Your task to perform on an android device: Search for a new desk on Ikea Image 0: 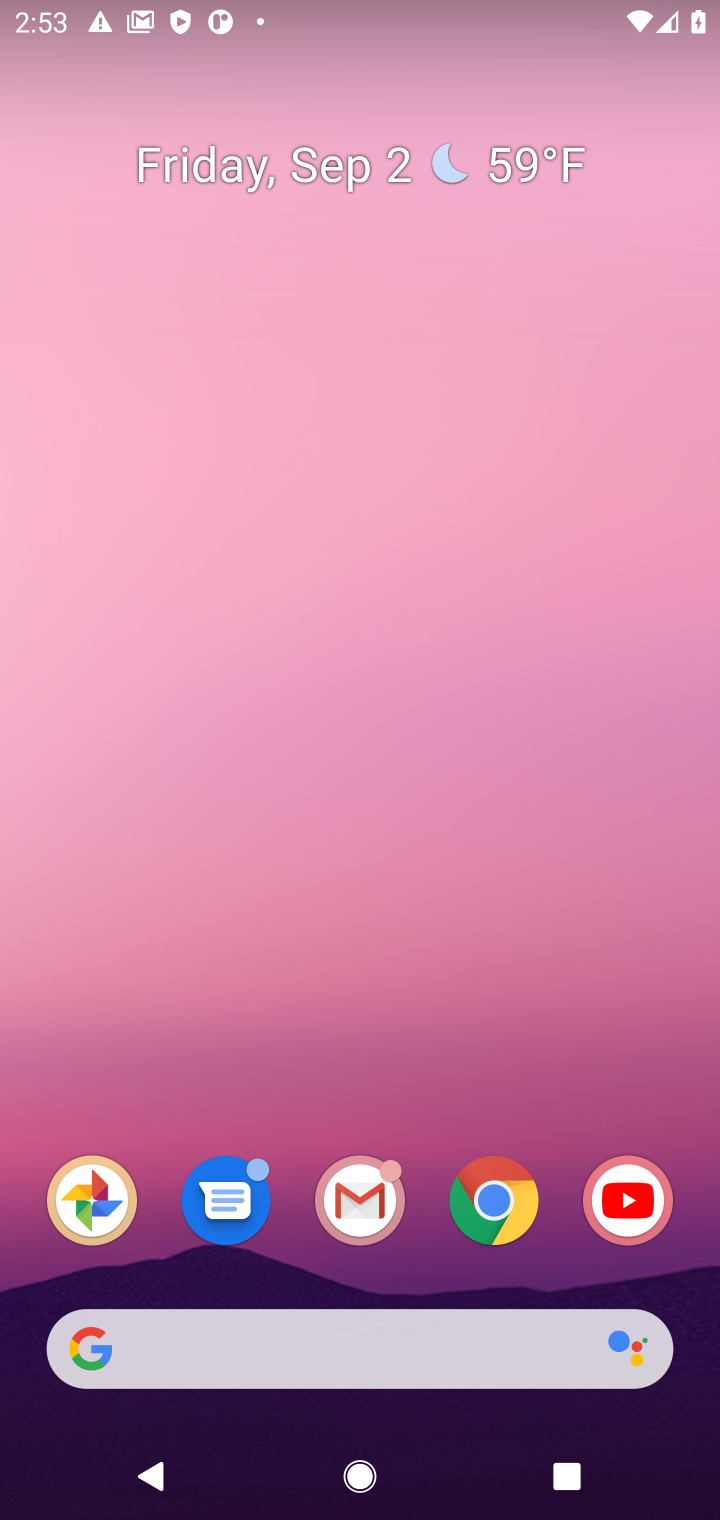
Step 0: click (485, 1213)
Your task to perform on an android device: Search for a new desk on Ikea Image 1: 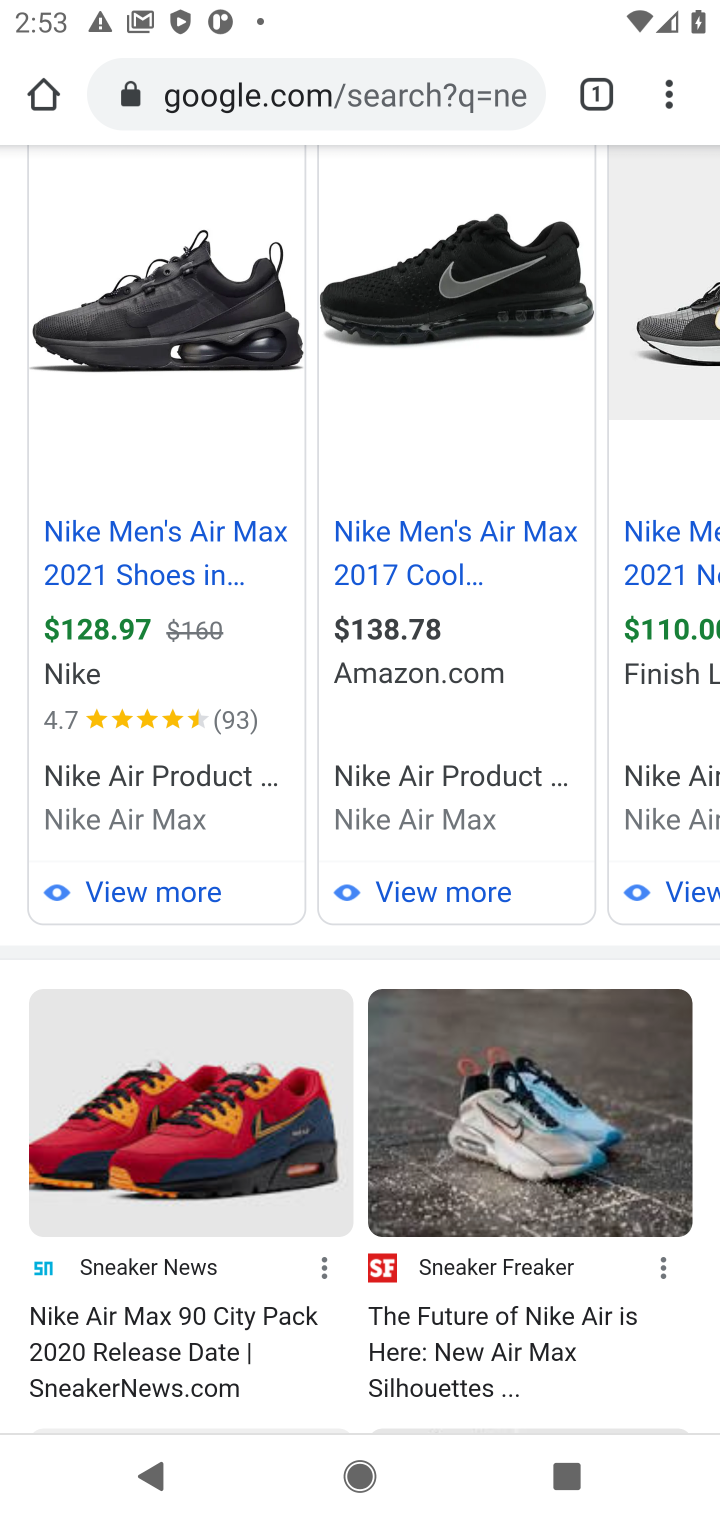
Step 1: click (400, 94)
Your task to perform on an android device: Search for a new desk on Ikea Image 2: 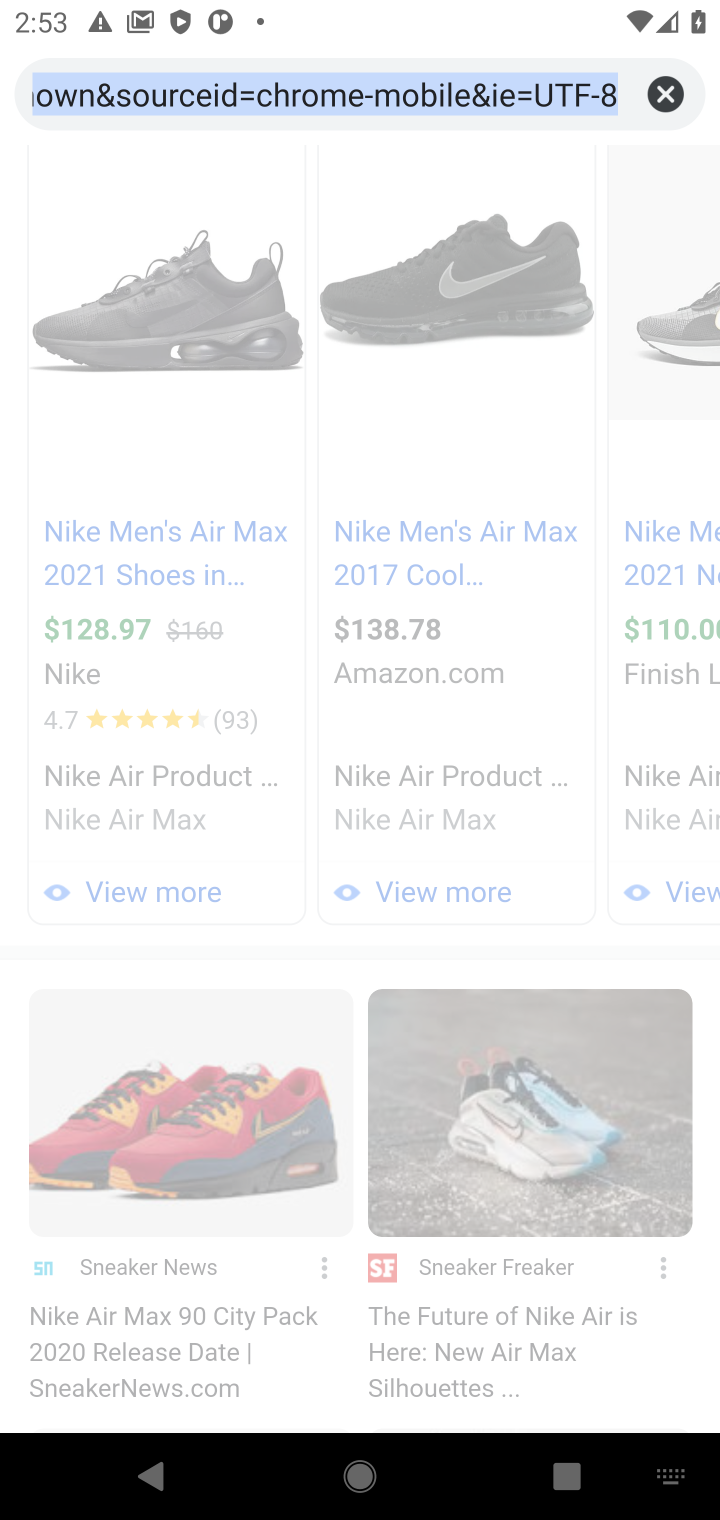
Step 2: click (655, 99)
Your task to perform on an android device: Search for a new desk on Ikea Image 3: 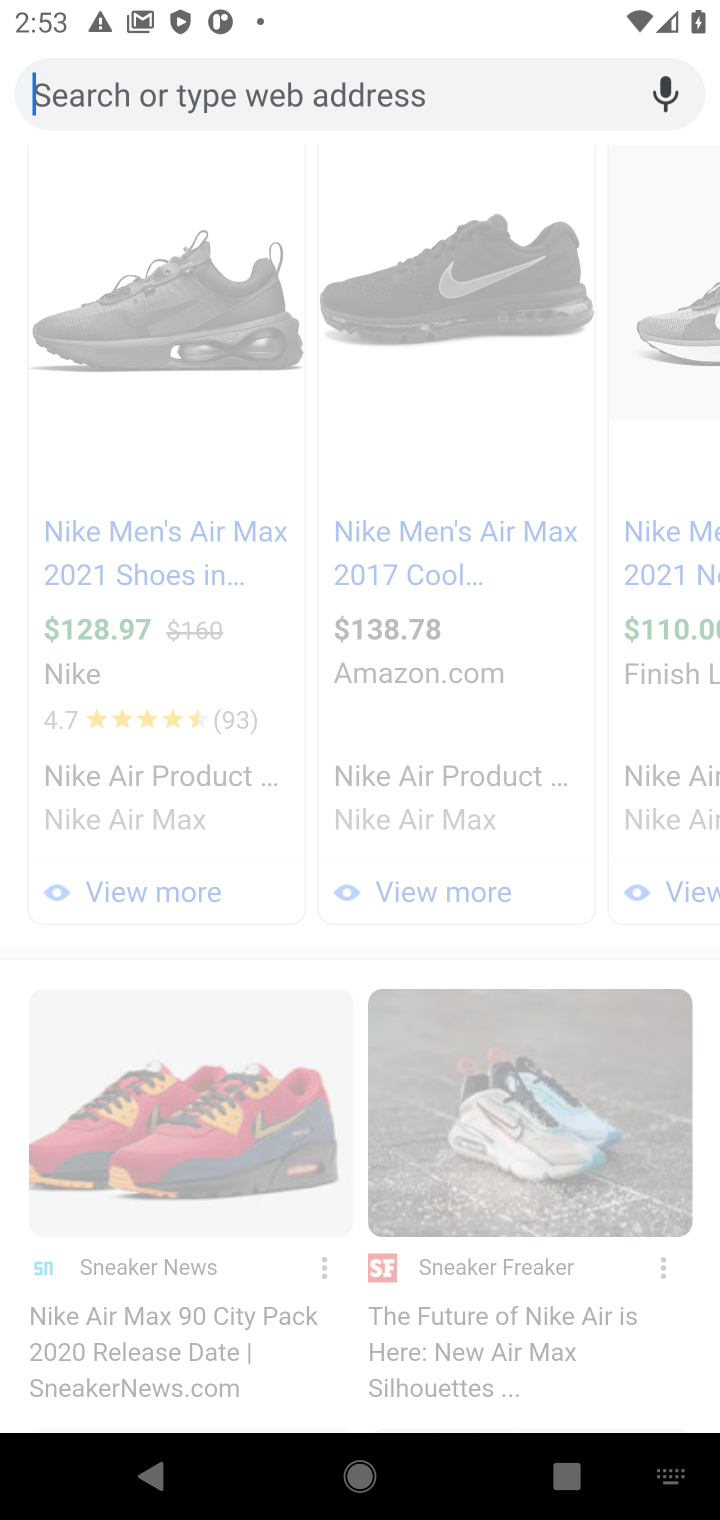
Step 3: press enter
Your task to perform on an android device: Search for a new desk on Ikea Image 4: 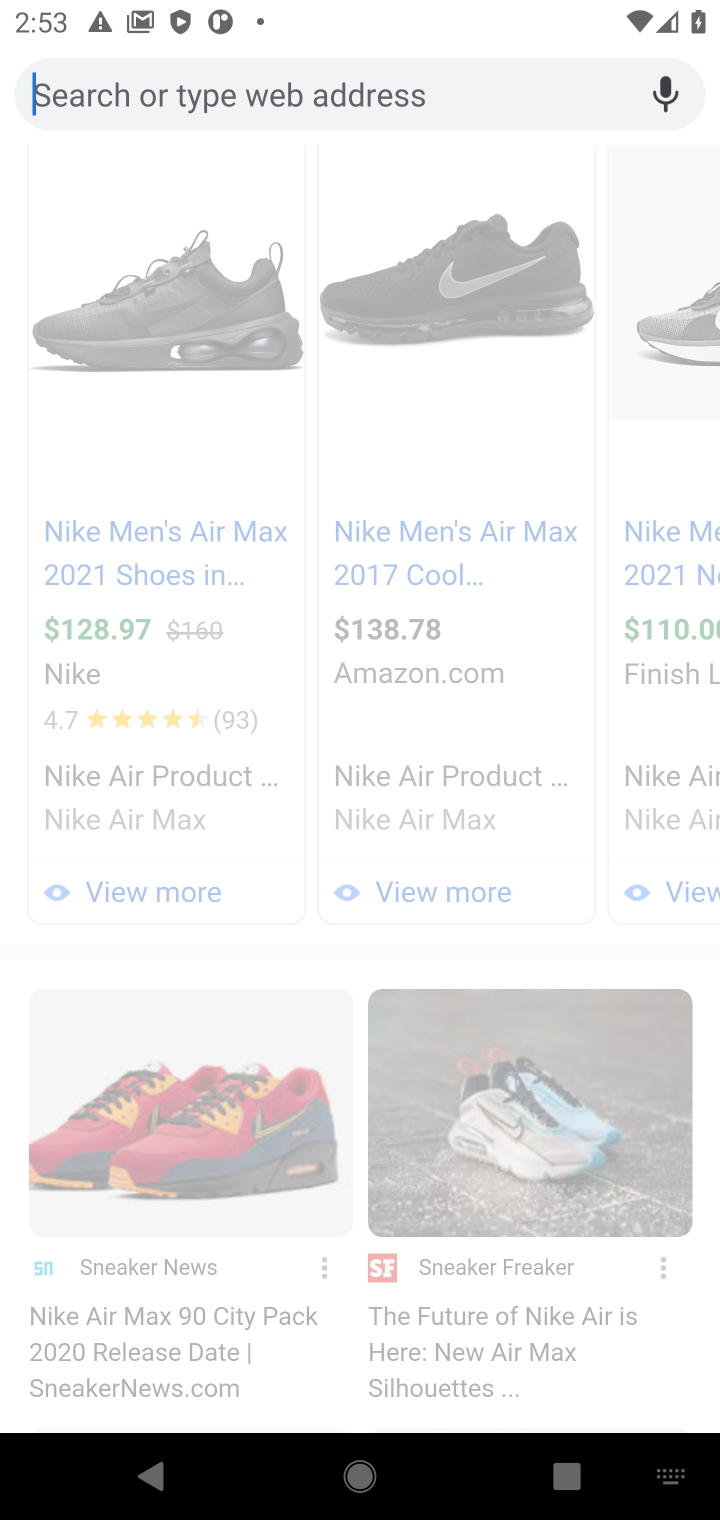
Step 4: type "Ikea"
Your task to perform on an android device: Search for a new desk on Ikea Image 5: 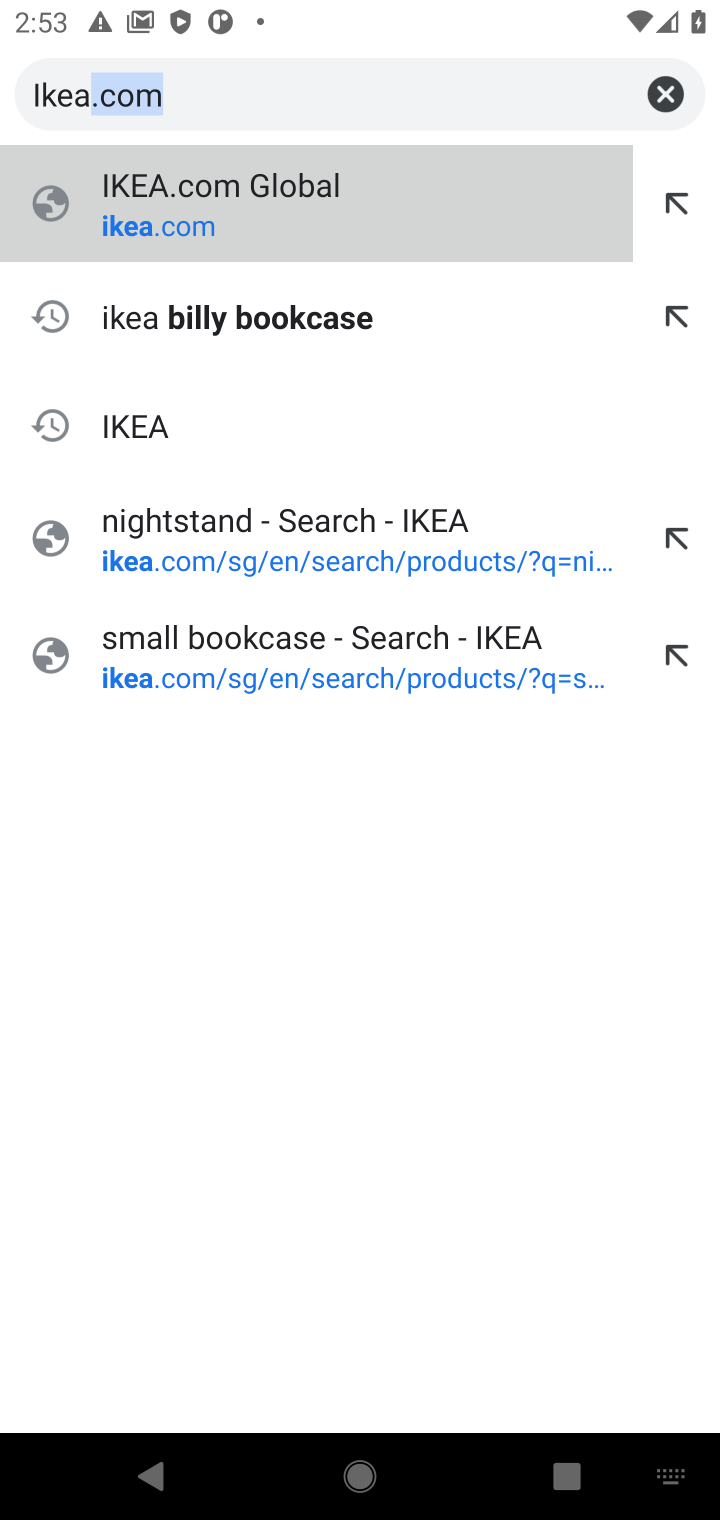
Step 5: click (300, 445)
Your task to perform on an android device: Search for a new desk on Ikea Image 6: 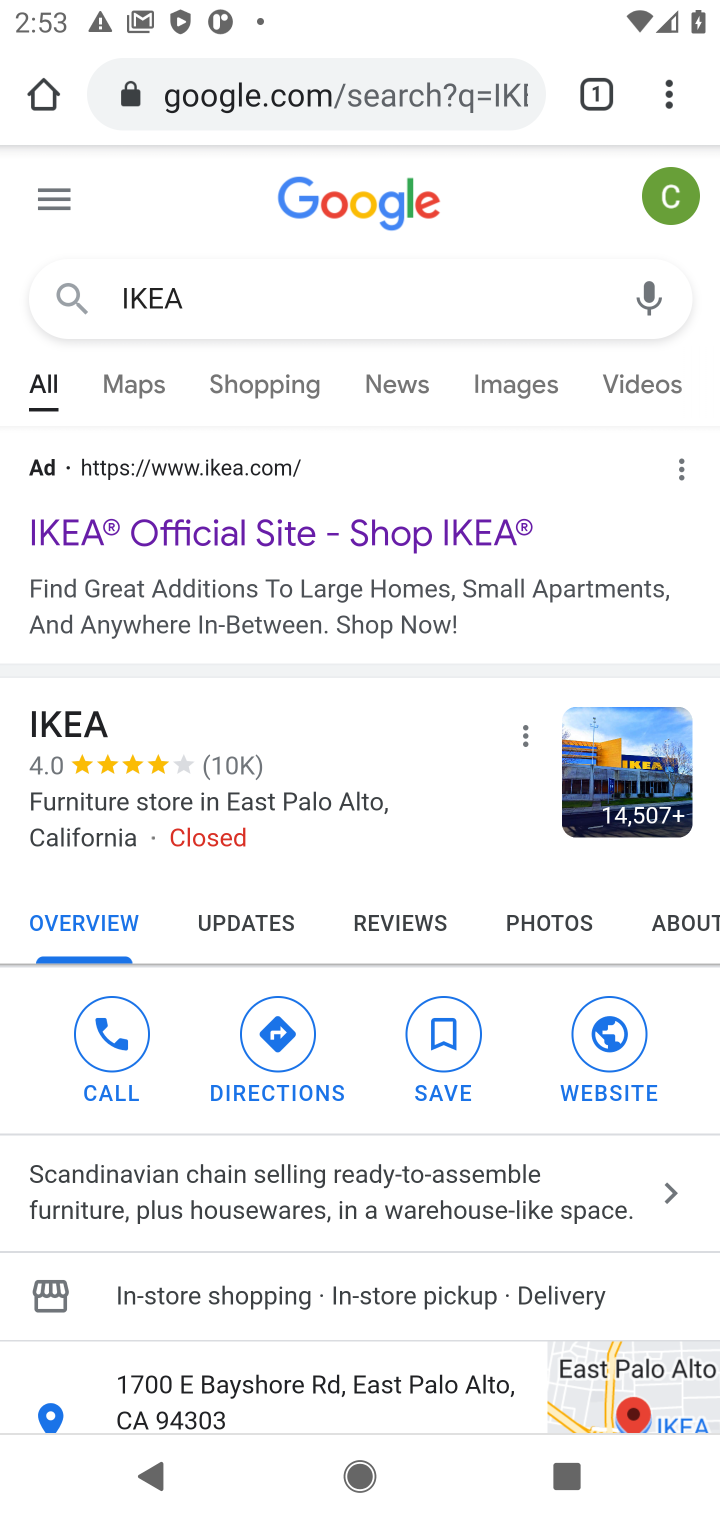
Step 6: click (381, 528)
Your task to perform on an android device: Search for a new desk on Ikea Image 7: 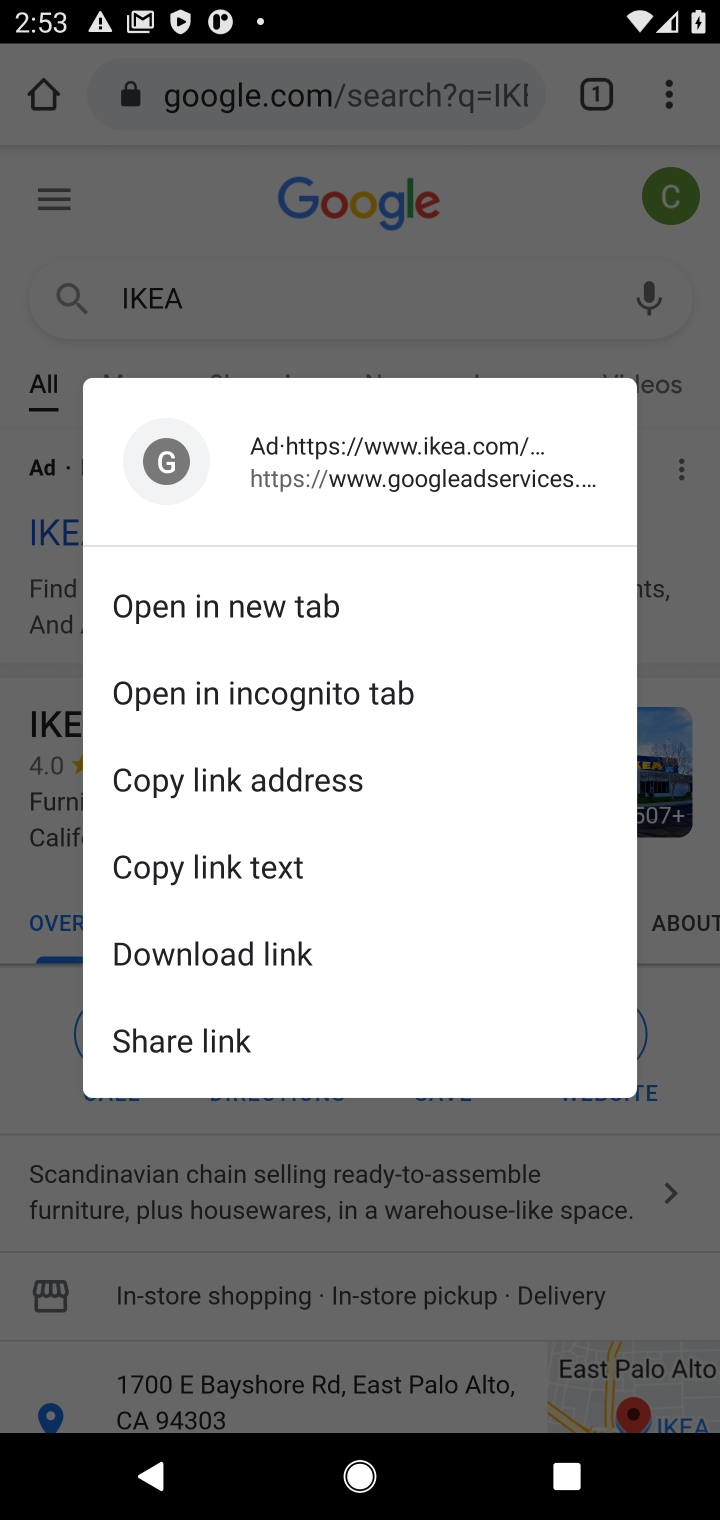
Step 7: click (625, 1210)
Your task to perform on an android device: Search for a new desk on Ikea Image 8: 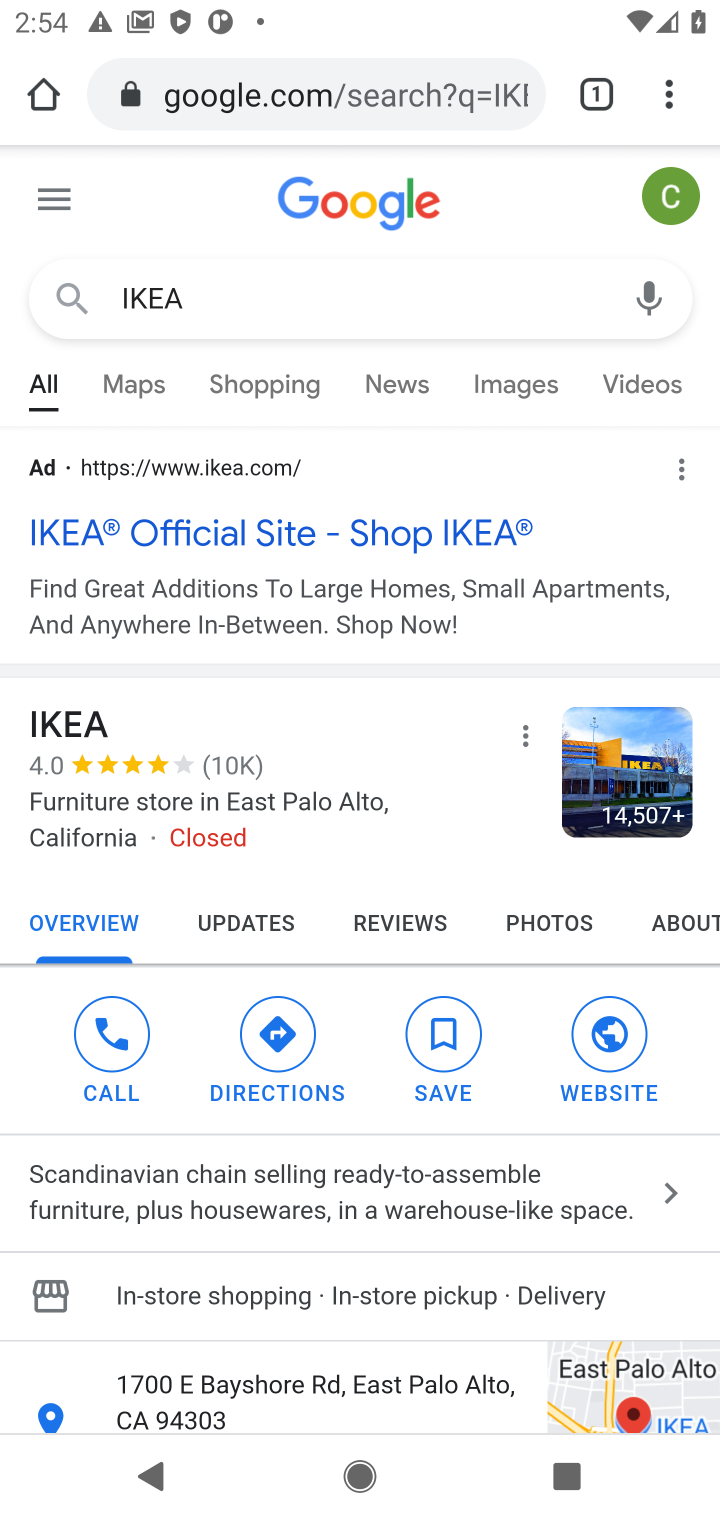
Step 8: click (175, 522)
Your task to perform on an android device: Search for a new desk on Ikea Image 9: 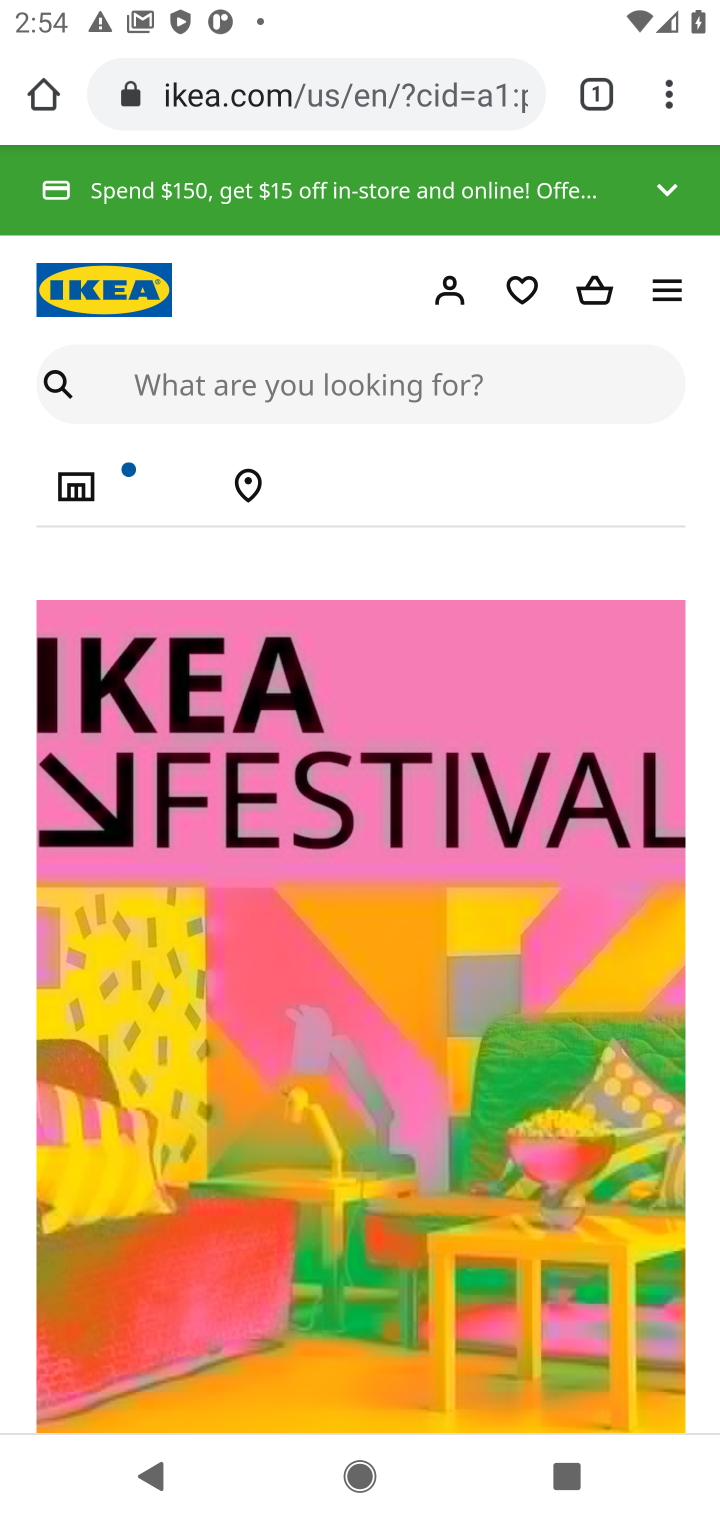
Step 9: drag from (517, 727) to (378, 373)
Your task to perform on an android device: Search for a new desk on Ikea Image 10: 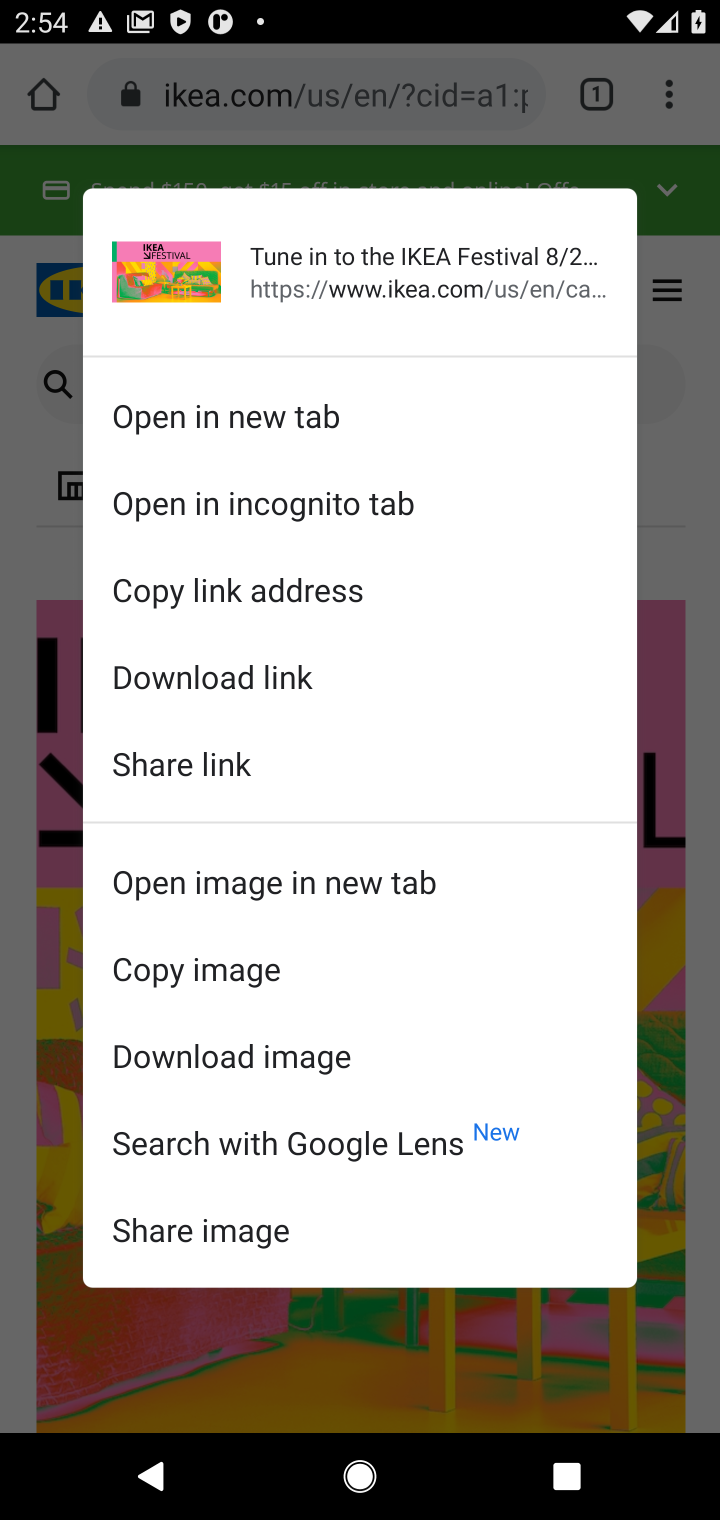
Step 10: click (678, 508)
Your task to perform on an android device: Search for a new desk on Ikea Image 11: 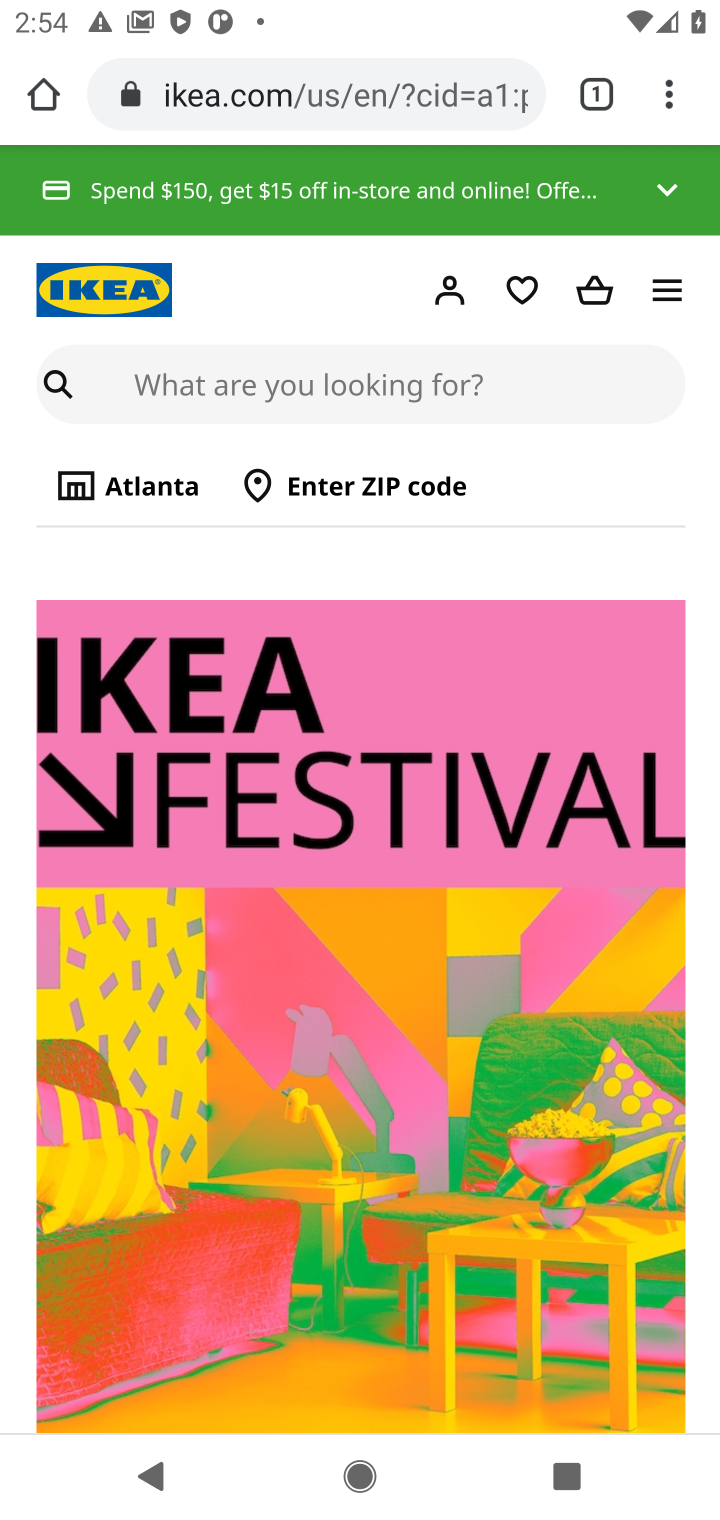
Step 11: click (321, 391)
Your task to perform on an android device: Search for a new desk on Ikea Image 12: 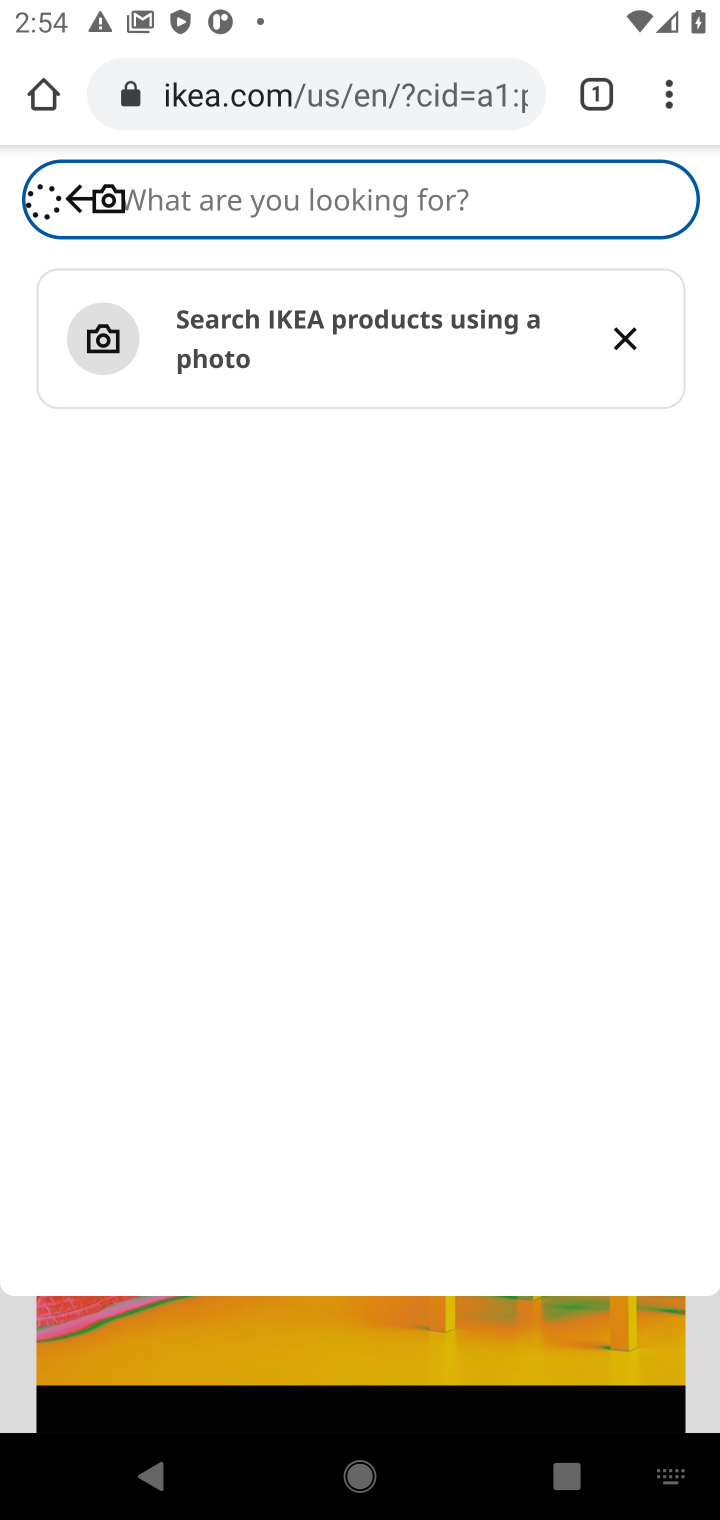
Step 12: press enter
Your task to perform on an android device: Search for a new desk on Ikea Image 13: 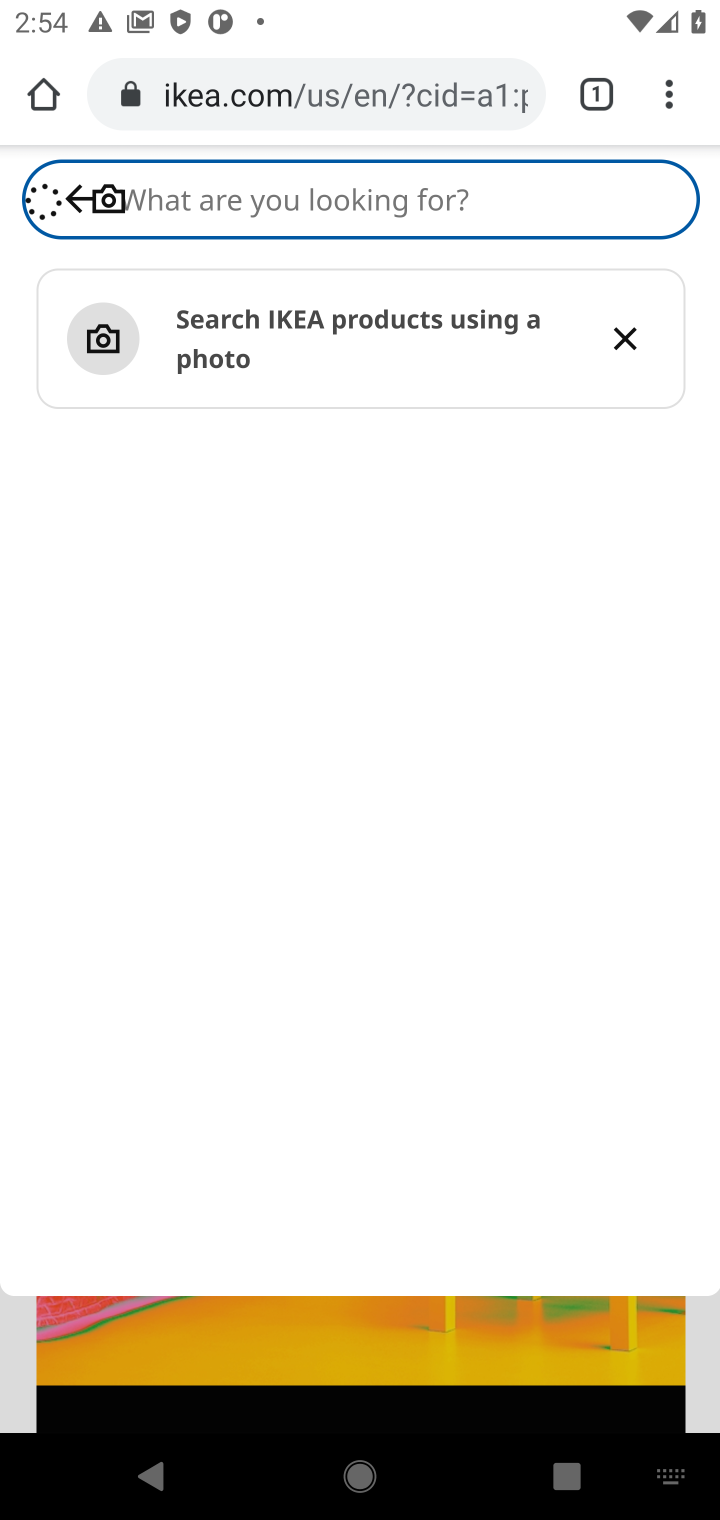
Step 13: type "desk"
Your task to perform on an android device: Search for a new desk on Ikea Image 14: 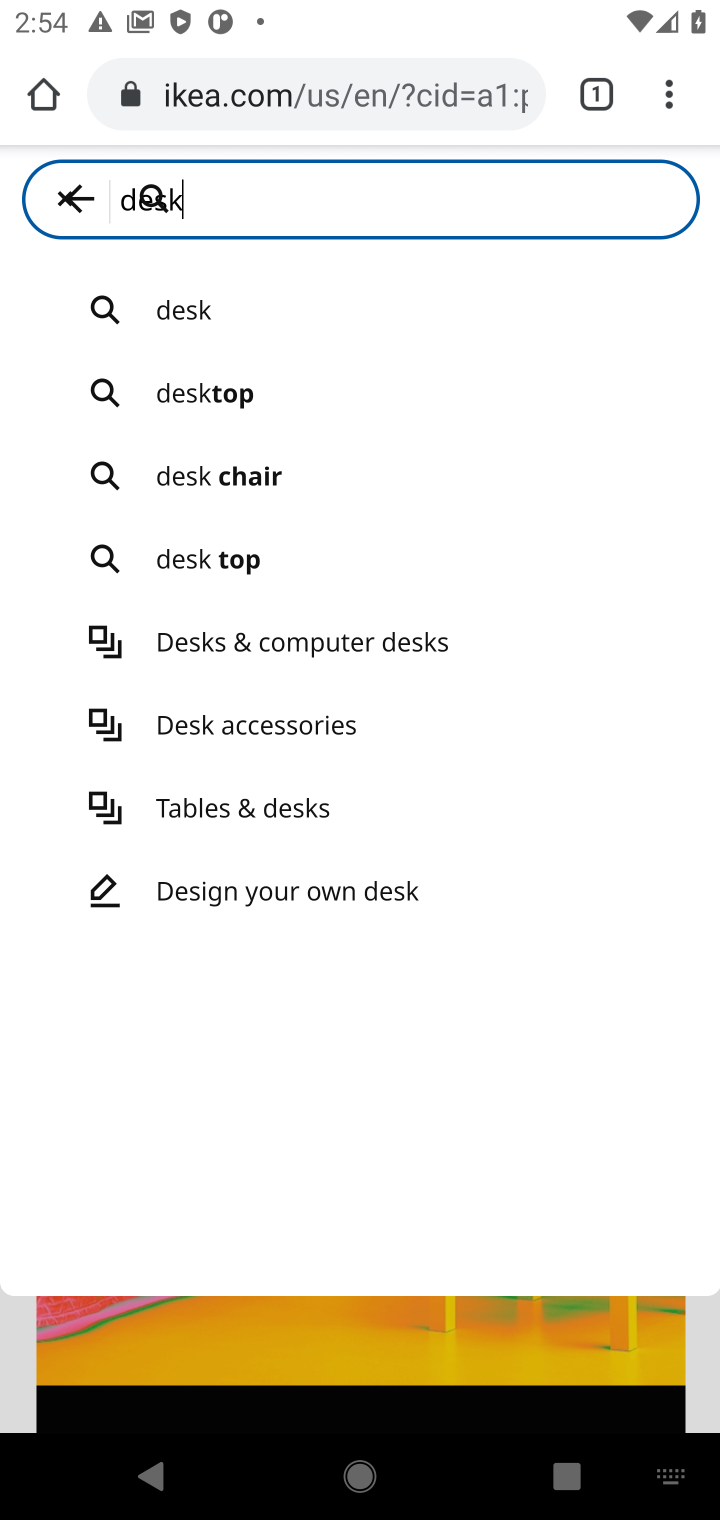
Step 14: click (214, 301)
Your task to perform on an android device: Search for a new desk on Ikea Image 15: 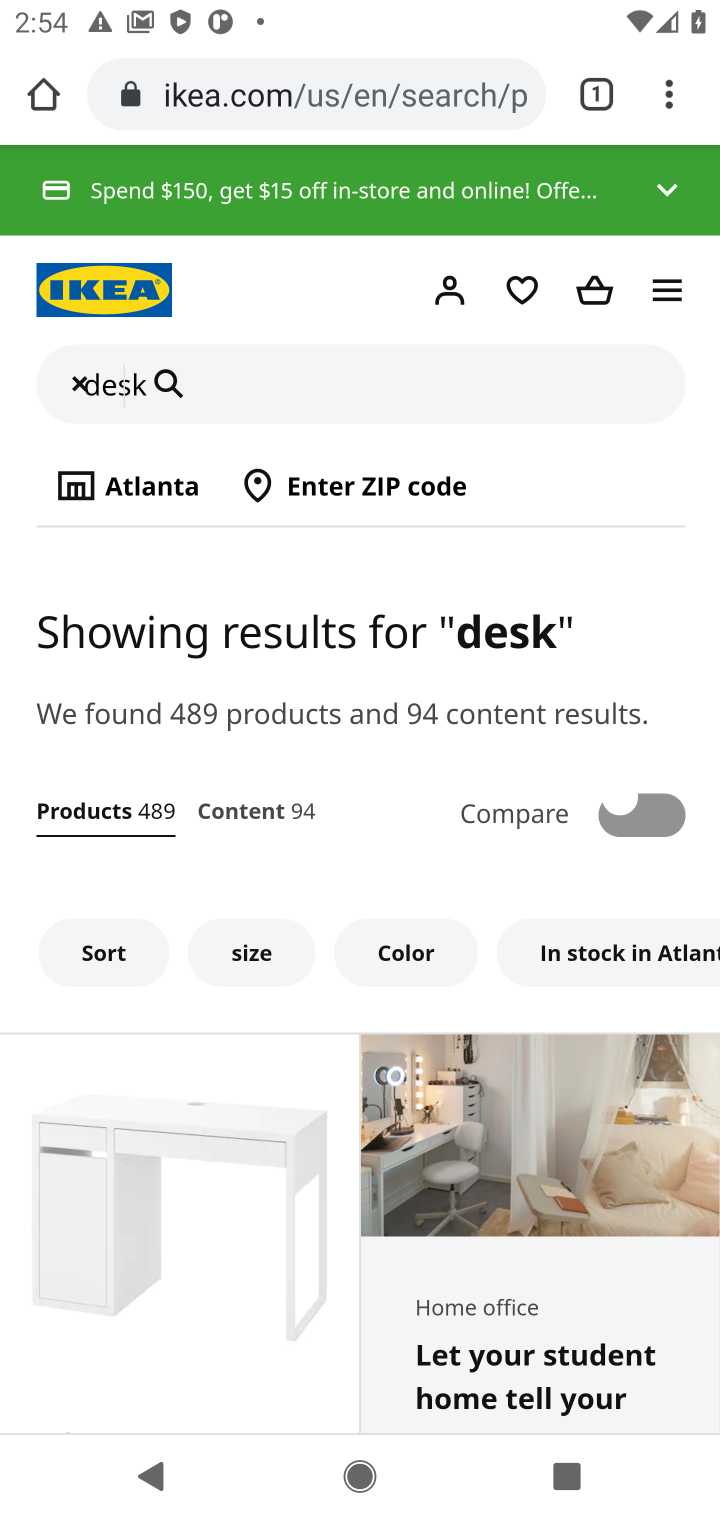
Step 15: task complete